Your task to perform on an android device: refresh tabs in the chrome app Image 0: 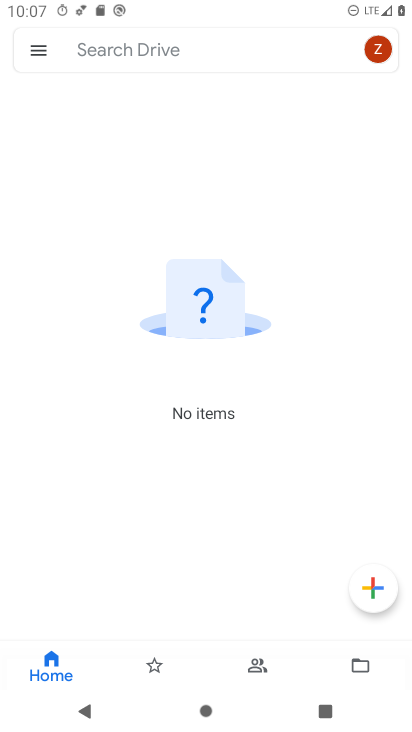
Step 0: press home button
Your task to perform on an android device: refresh tabs in the chrome app Image 1: 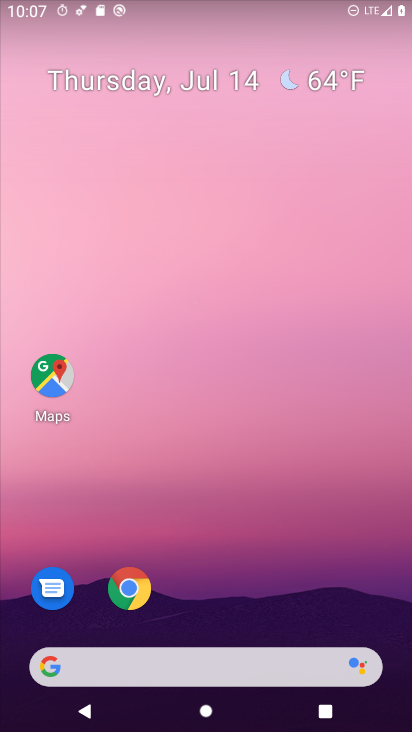
Step 1: drag from (350, 569) to (367, 55)
Your task to perform on an android device: refresh tabs in the chrome app Image 2: 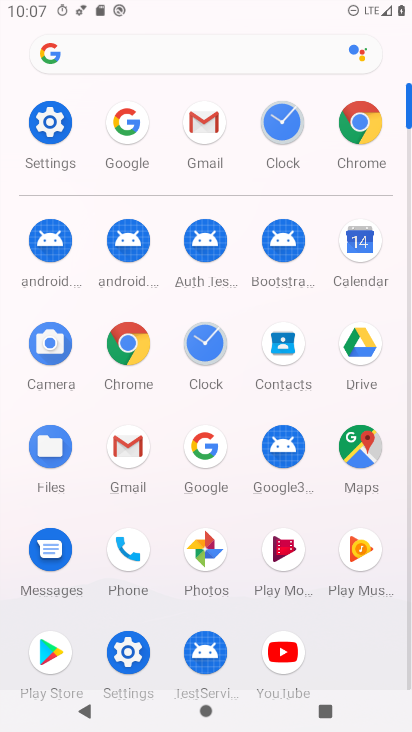
Step 2: click (359, 133)
Your task to perform on an android device: refresh tabs in the chrome app Image 3: 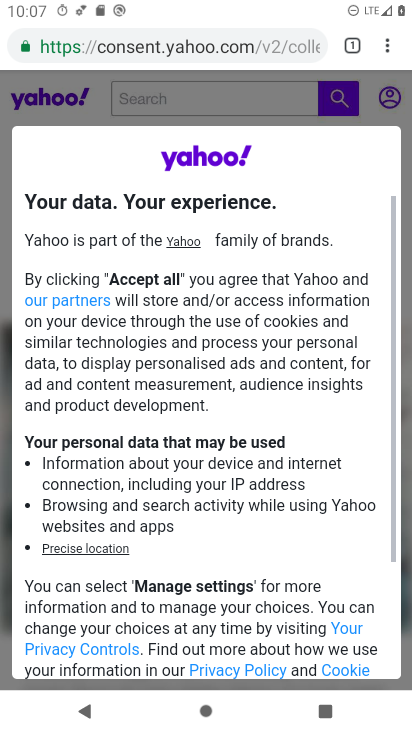
Step 3: click (386, 43)
Your task to perform on an android device: refresh tabs in the chrome app Image 4: 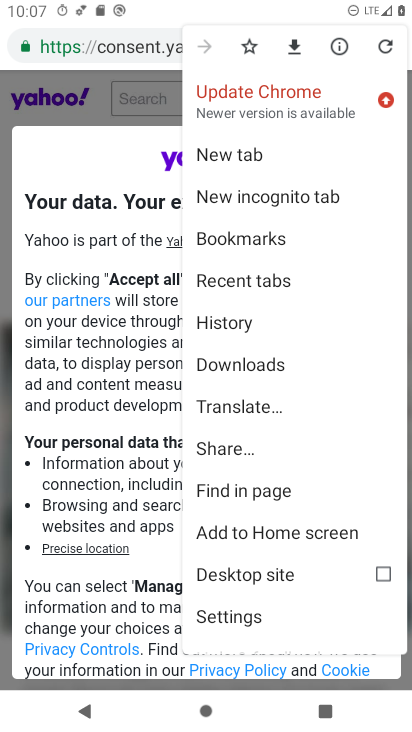
Step 4: click (390, 45)
Your task to perform on an android device: refresh tabs in the chrome app Image 5: 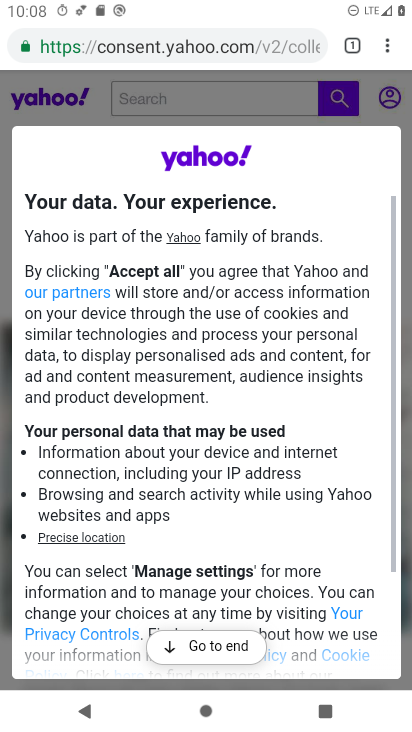
Step 5: task complete